Your task to perform on an android device: Open the map Image 0: 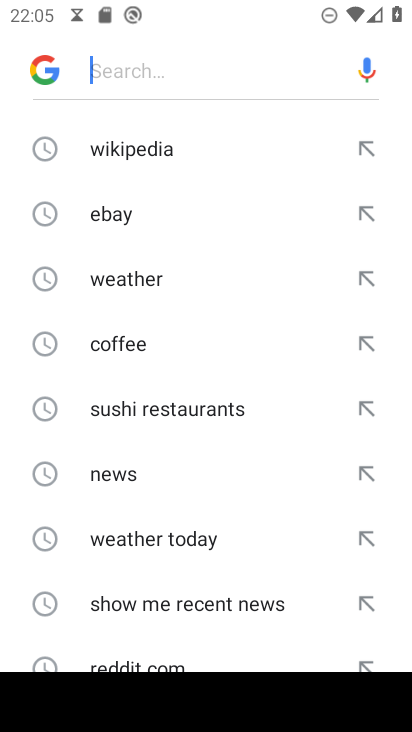
Step 0: press home button
Your task to perform on an android device: Open the map Image 1: 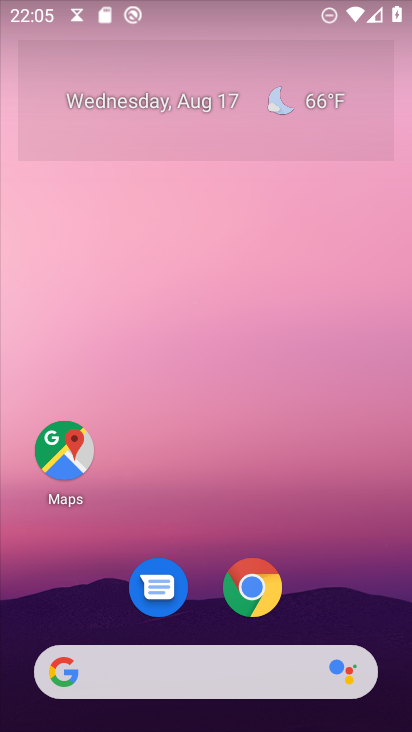
Step 1: click (52, 475)
Your task to perform on an android device: Open the map Image 2: 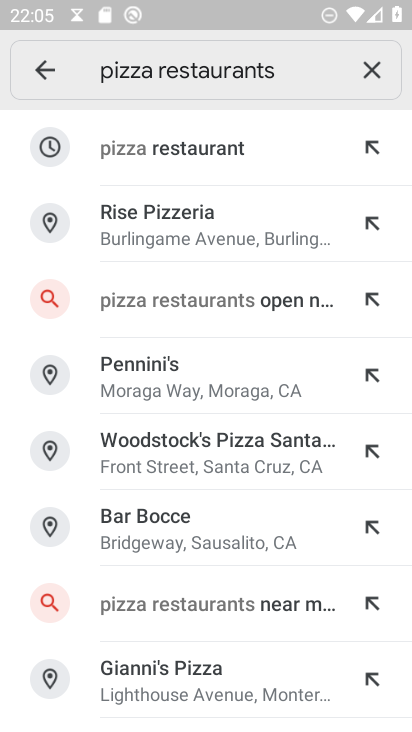
Step 2: task complete